Your task to perform on an android device: delete the emails in spam in the gmail app Image 0: 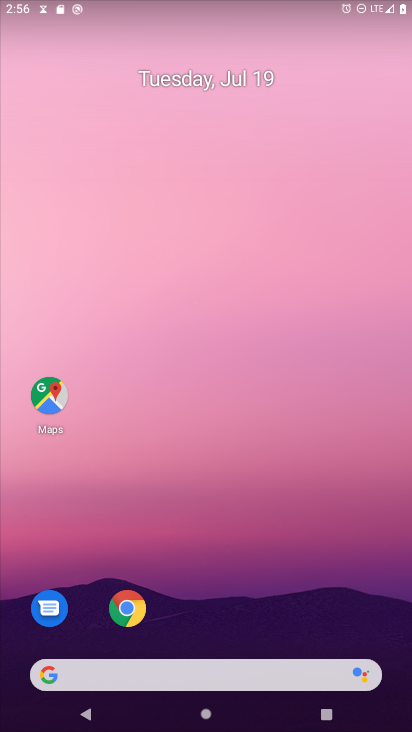
Step 0: drag from (241, 681) to (286, 20)
Your task to perform on an android device: delete the emails in spam in the gmail app Image 1: 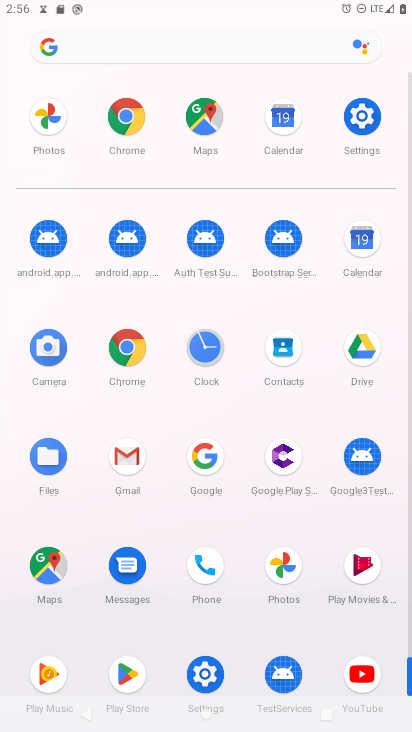
Step 1: click (136, 459)
Your task to perform on an android device: delete the emails in spam in the gmail app Image 2: 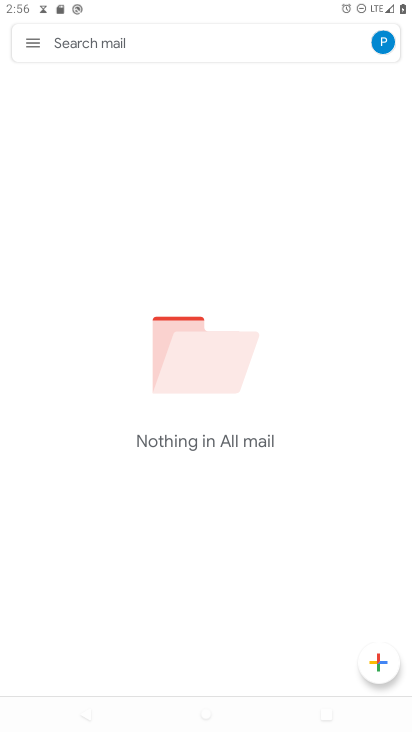
Step 2: click (37, 43)
Your task to perform on an android device: delete the emails in spam in the gmail app Image 3: 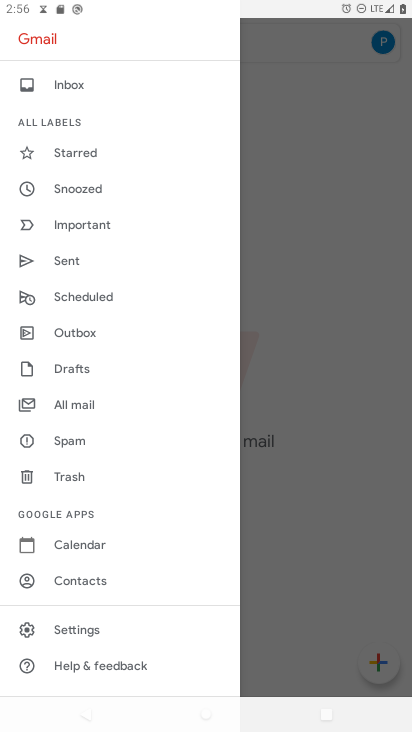
Step 3: click (81, 442)
Your task to perform on an android device: delete the emails in spam in the gmail app Image 4: 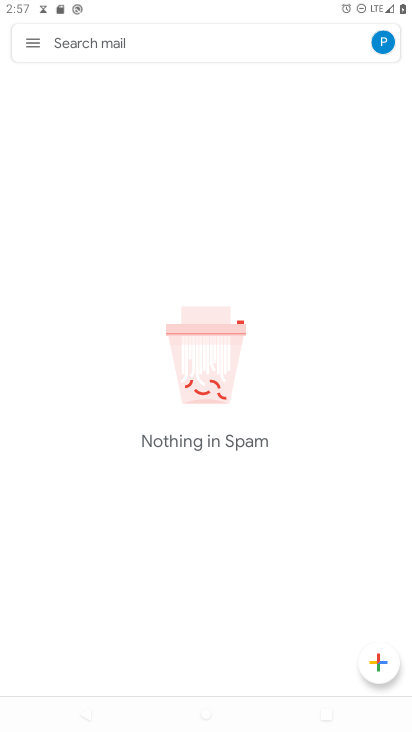
Step 4: task complete